Your task to perform on an android device: install app "Pandora - Music & Podcasts" Image 0: 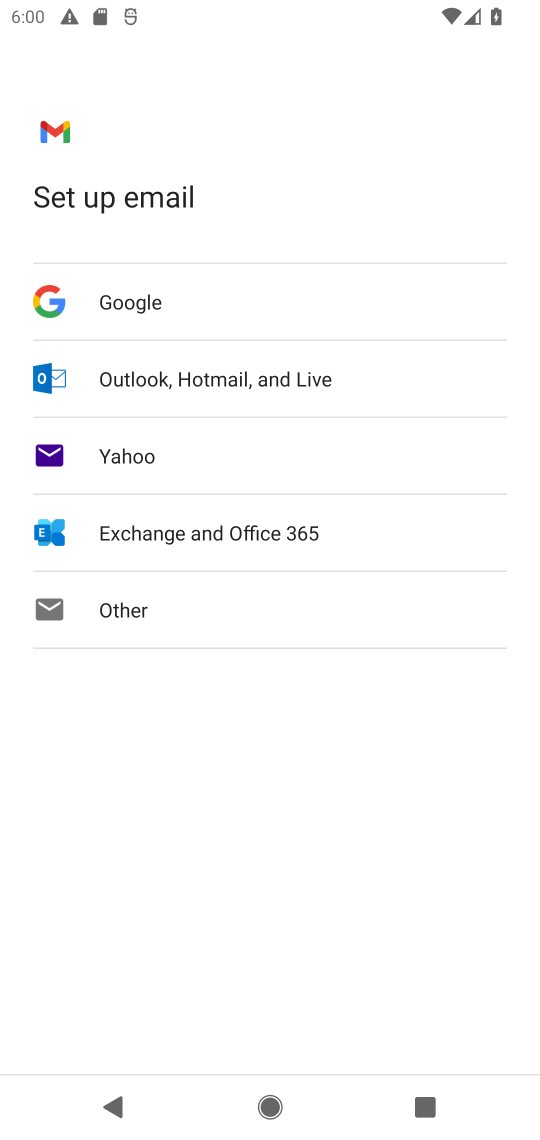
Step 0: press home button
Your task to perform on an android device: install app "Pandora - Music & Podcasts" Image 1: 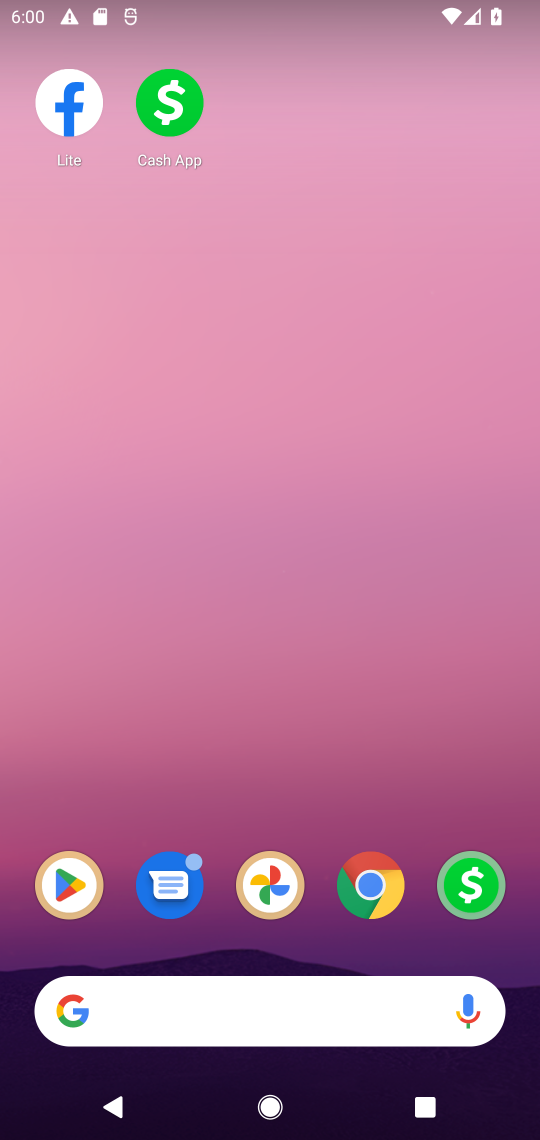
Step 1: drag from (369, 511) to (376, 89)
Your task to perform on an android device: install app "Pandora - Music & Podcasts" Image 2: 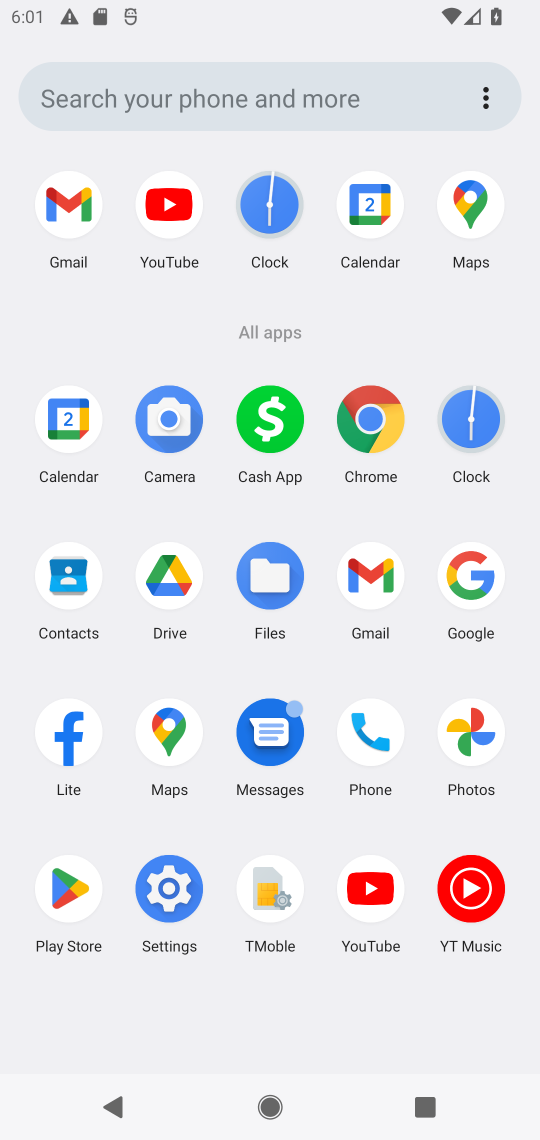
Step 2: click (71, 896)
Your task to perform on an android device: install app "Pandora - Music & Podcasts" Image 3: 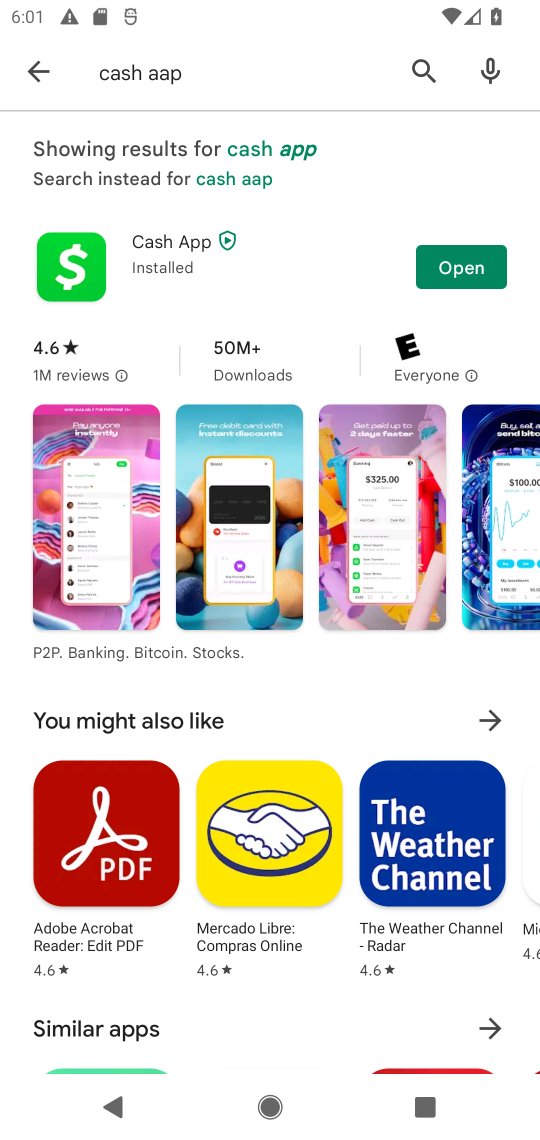
Step 3: click (415, 67)
Your task to perform on an android device: install app "Pandora - Music & Podcasts" Image 4: 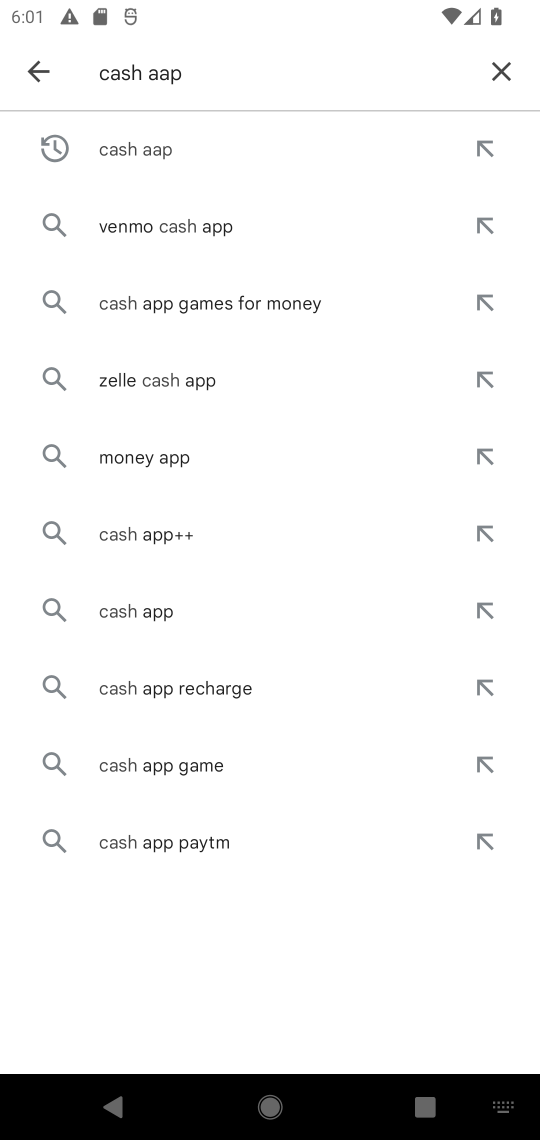
Step 4: click (493, 69)
Your task to perform on an android device: install app "Pandora - Music & Podcasts" Image 5: 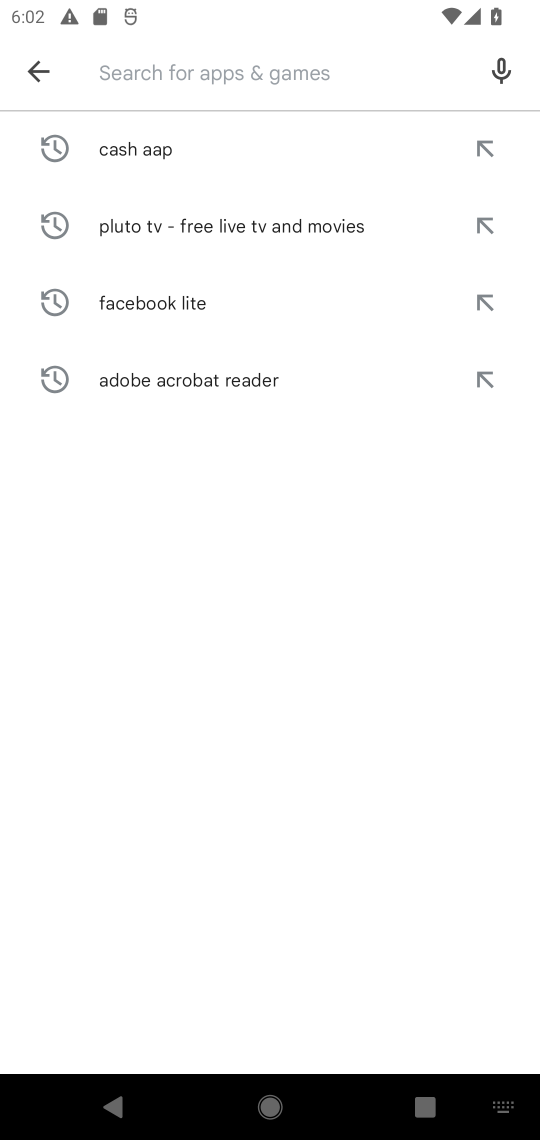
Step 5: type "Pandora - Music & Podcasts"
Your task to perform on an android device: install app "Pandora - Music & Podcasts" Image 6: 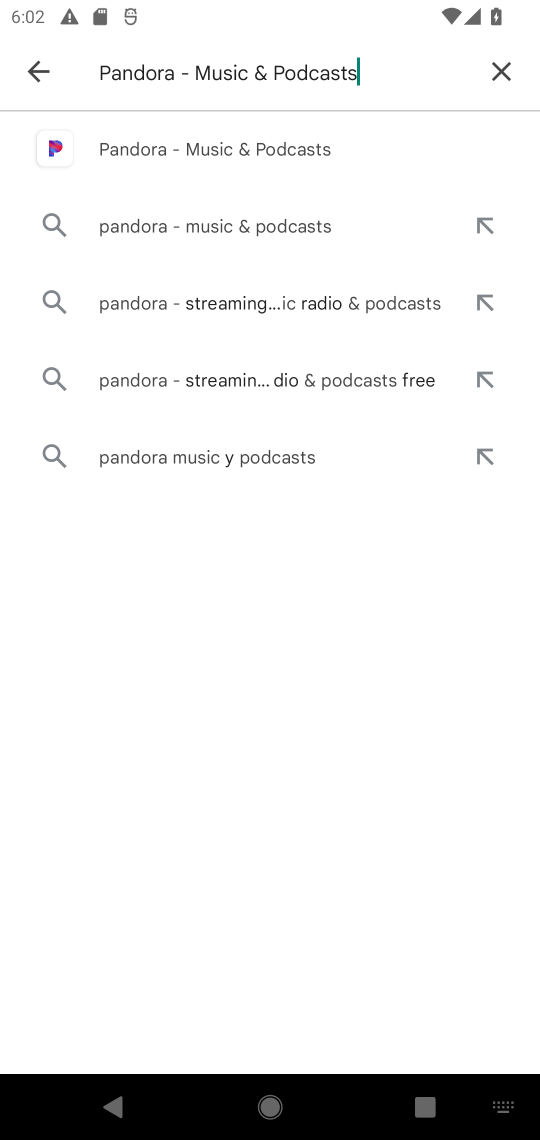
Step 6: click (291, 158)
Your task to perform on an android device: install app "Pandora - Music & Podcasts" Image 7: 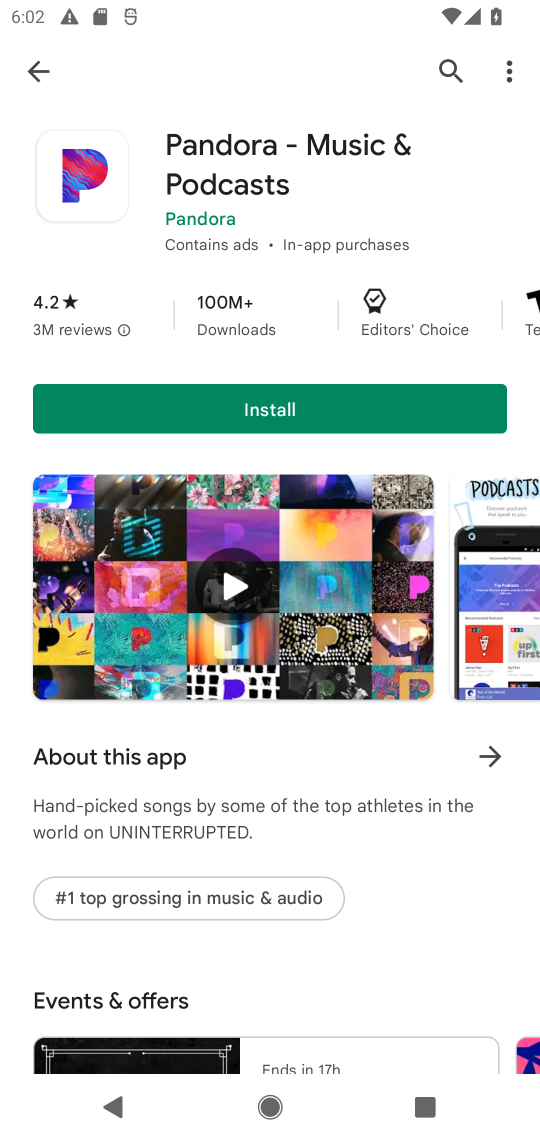
Step 7: click (368, 411)
Your task to perform on an android device: install app "Pandora - Music & Podcasts" Image 8: 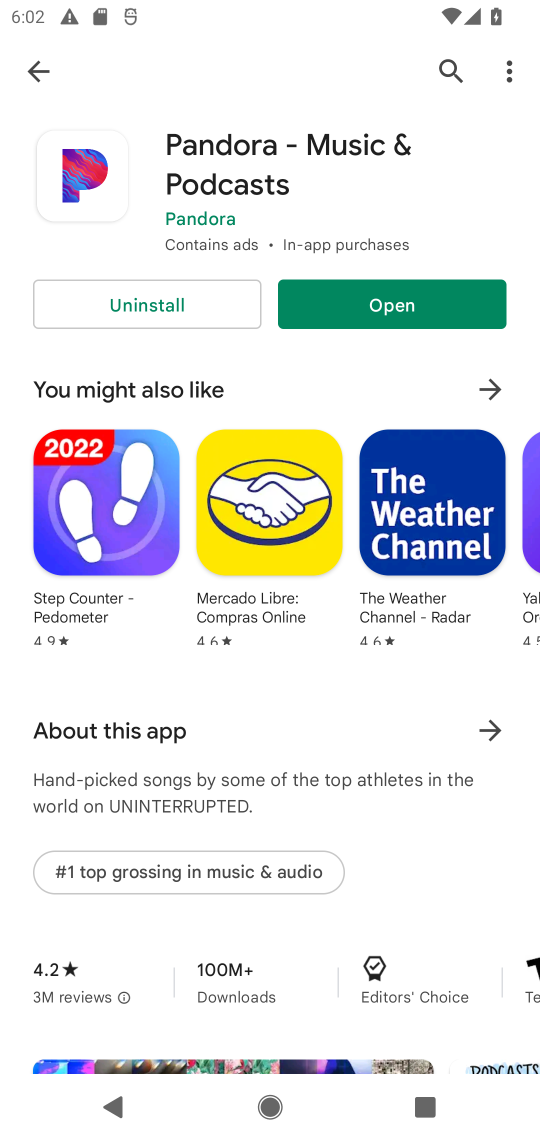
Step 8: task complete